Your task to perform on an android device: What is the recent news? Image 0: 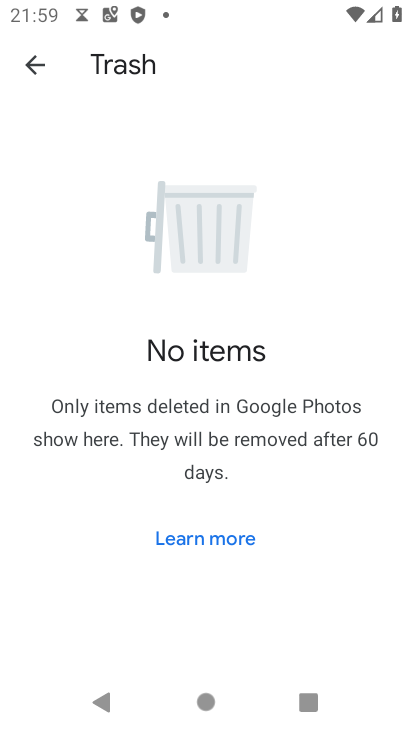
Step 0: press home button
Your task to perform on an android device: What is the recent news? Image 1: 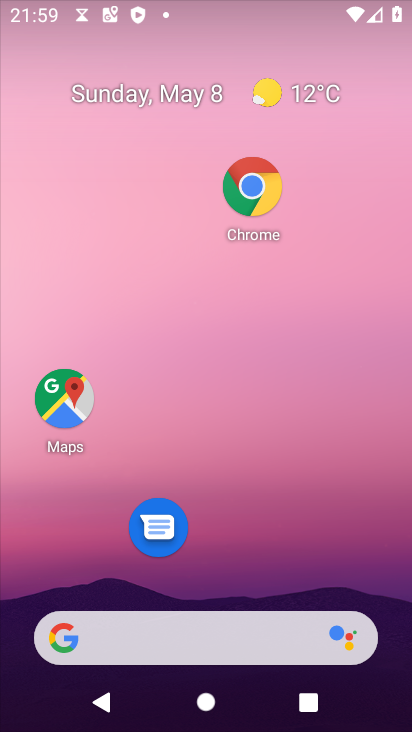
Step 1: drag from (317, 454) to (343, 308)
Your task to perform on an android device: What is the recent news? Image 2: 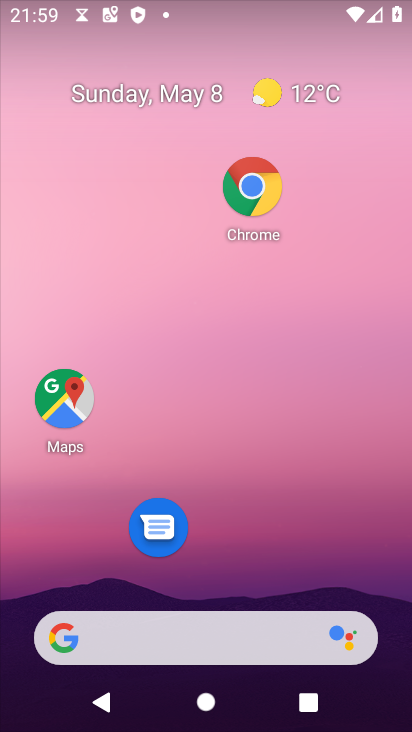
Step 2: drag from (241, 544) to (307, 271)
Your task to perform on an android device: What is the recent news? Image 3: 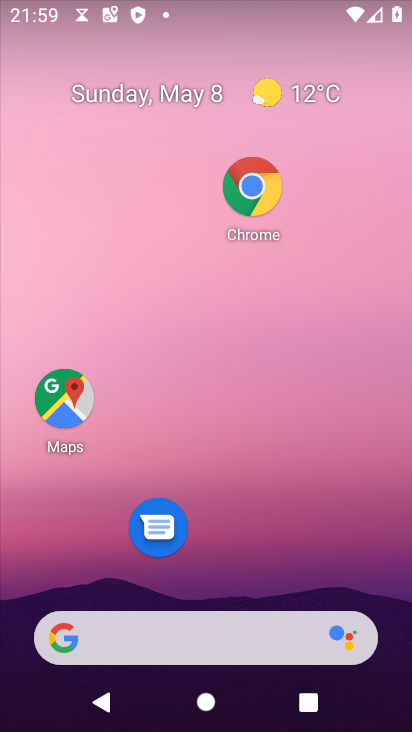
Step 3: drag from (236, 595) to (274, 444)
Your task to perform on an android device: What is the recent news? Image 4: 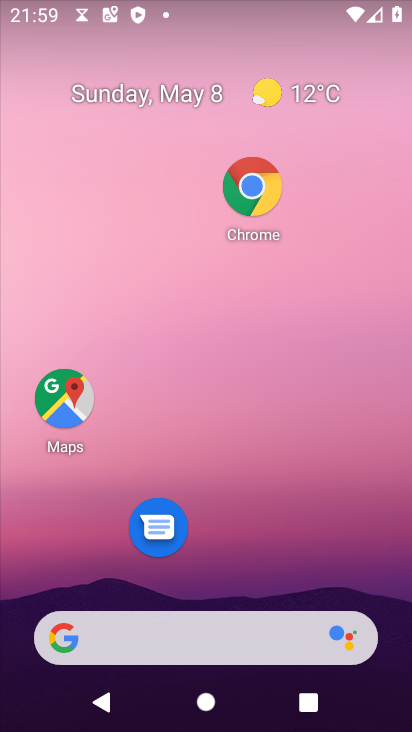
Step 4: drag from (320, 528) to (336, 308)
Your task to perform on an android device: What is the recent news? Image 5: 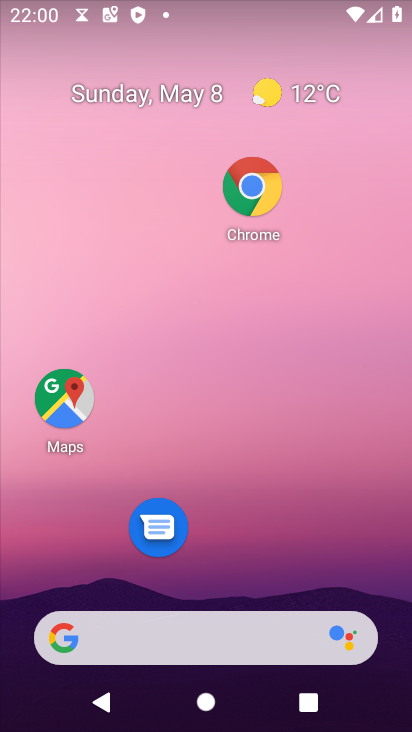
Step 5: drag from (263, 544) to (305, 334)
Your task to perform on an android device: What is the recent news? Image 6: 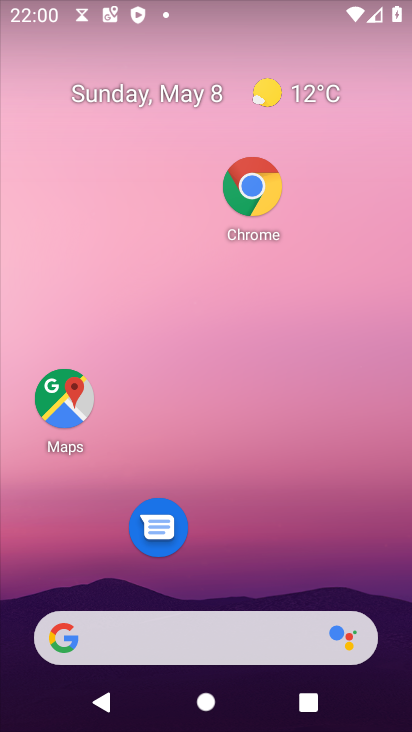
Step 6: drag from (270, 573) to (311, 272)
Your task to perform on an android device: What is the recent news? Image 7: 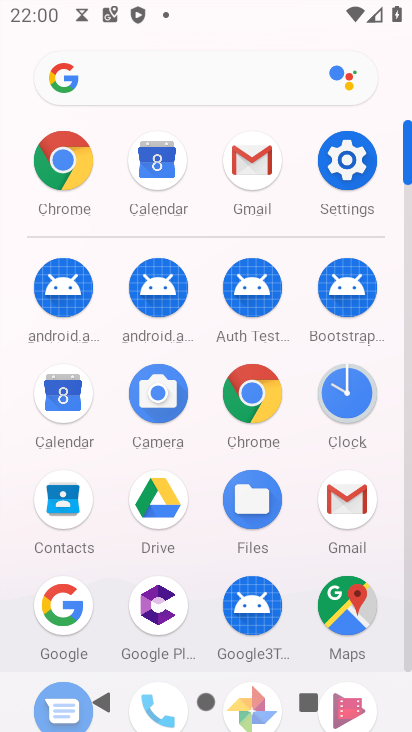
Step 7: click (60, 158)
Your task to perform on an android device: What is the recent news? Image 8: 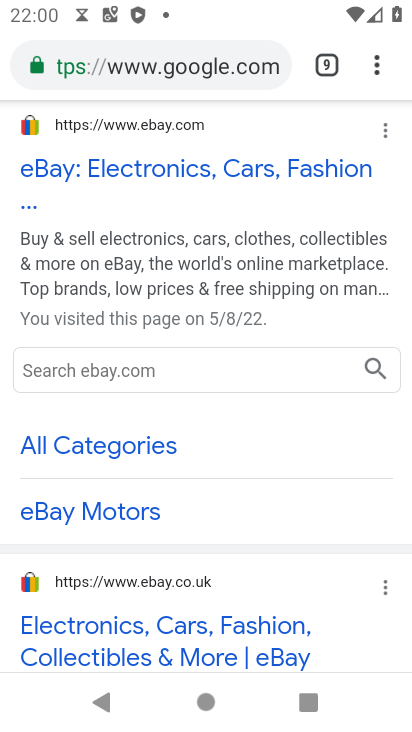
Step 8: click (365, 67)
Your task to perform on an android device: What is the recent news? Image 9: 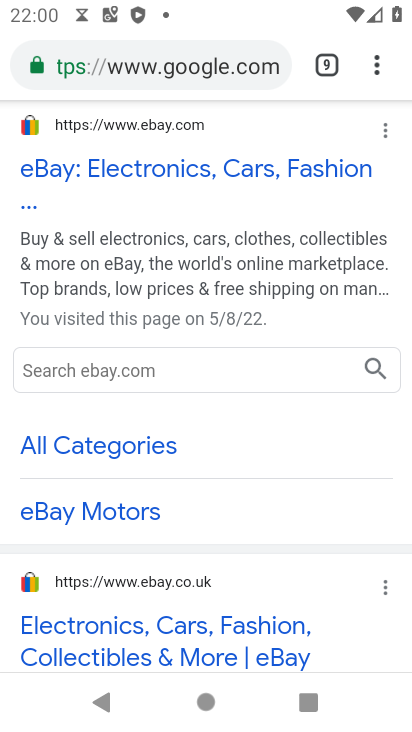
Step 9: click (361, 67)
Your task to perform on an android device: What is the recent news? Image 10: 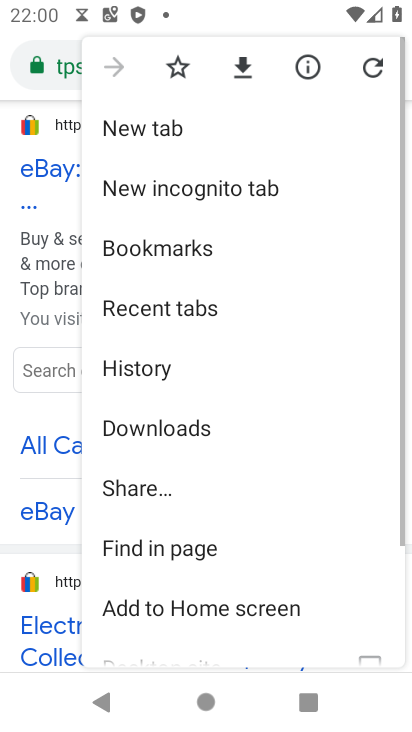
Step 10: click (182, 133)
Your task to perform on an android device: What is the recent news? Image 11: 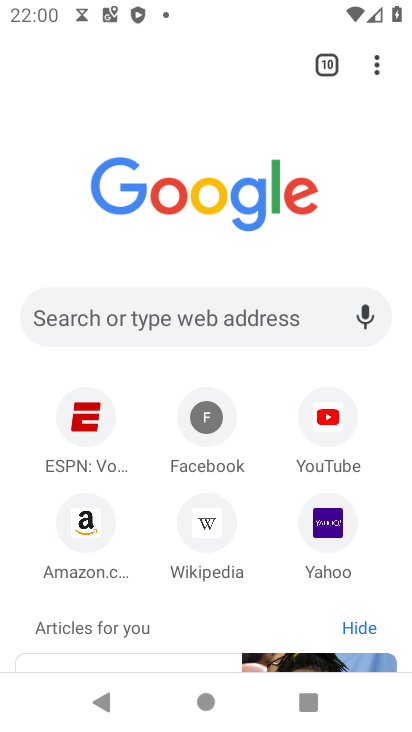
Step 11: click (172, 301)
Your task to perform on an android device: What is the recent news? Image 12: 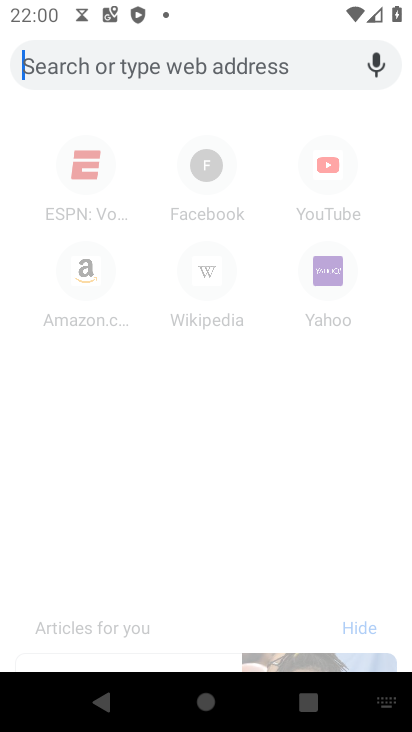
Step 12: type "What is the recent news?"
Your task to perform on an android device: What is the recent news? Image 13: 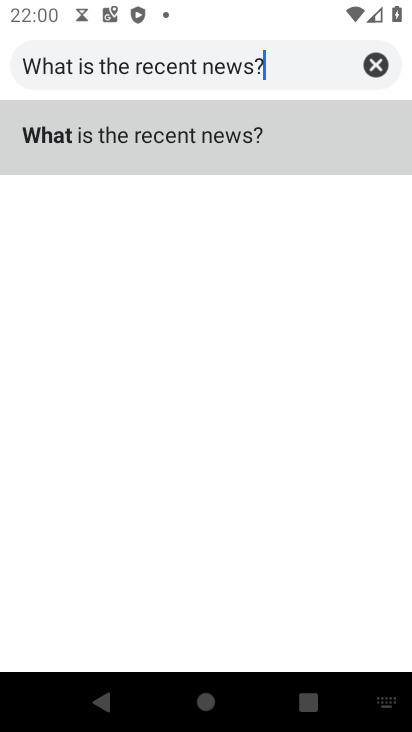
Step 13: click (138, 136)
Your task to perform on an android device: What is the recent news? Image 14: 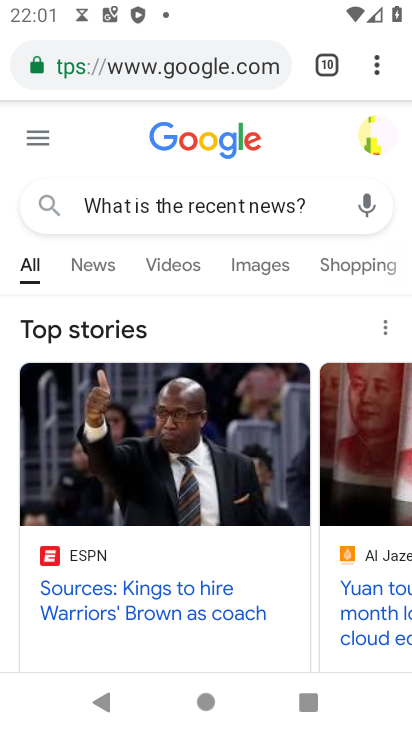
Step 14: task complete